Your task to perform on an android device: change text size in settings app Image 0: 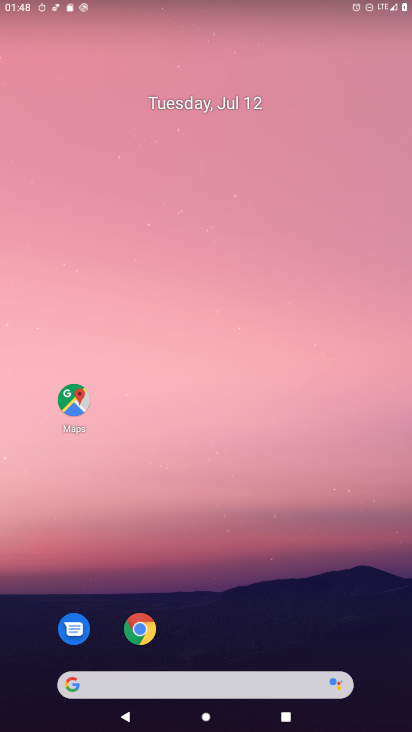
Step 0: drag from (130, 597) to (287, 188)
Your task to perform on an android device: change text size in settings app Image 1: 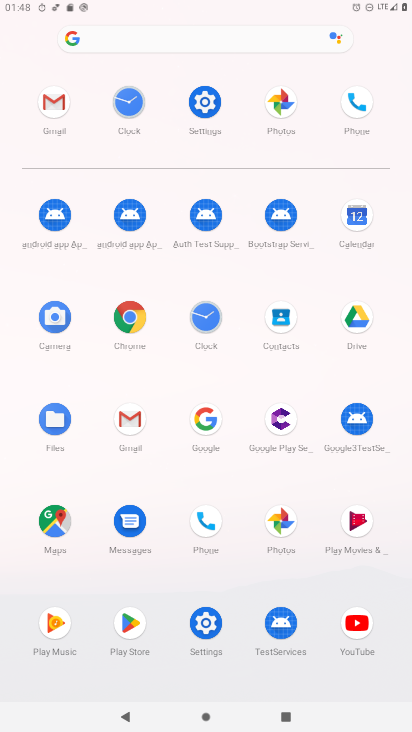
Step 1: click (221, 631)
Your task to perform on an android device: change text size in settings app Image 2: 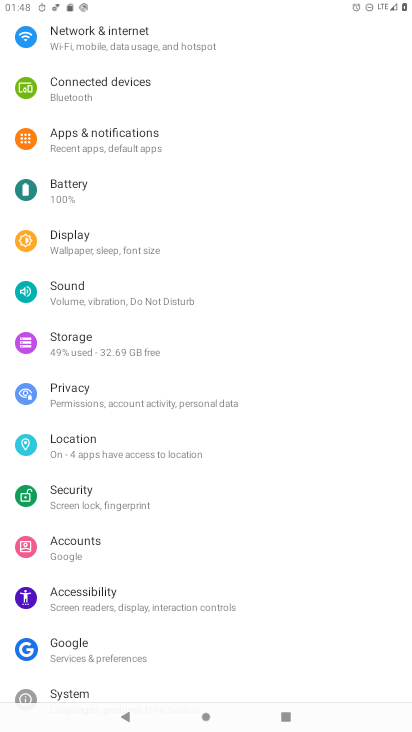
Step 2: drag from (147, 638) to (230, 203)
Your task to perform on an android device: change text size in settings app Image 3: 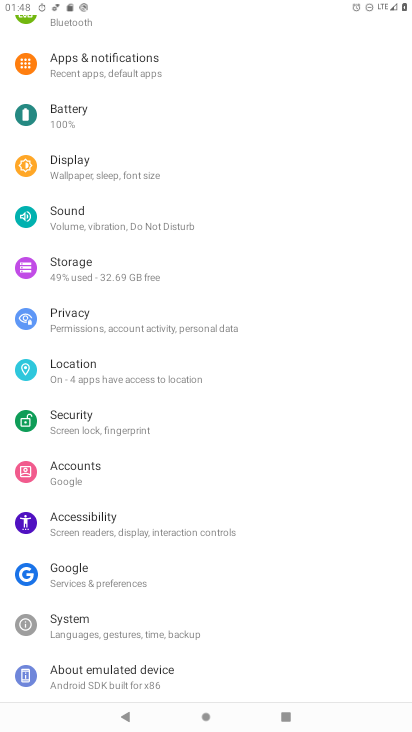
Step 3: click (149, 517)
Your task to perform on an android device: change text size in settings app Image 4: 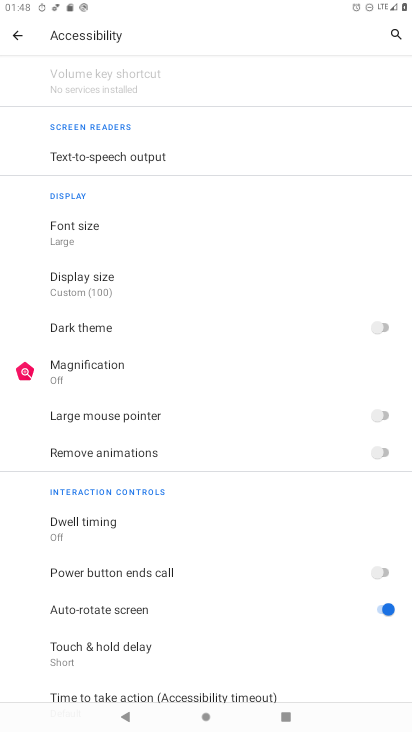
Step 4: click (115, 232)
Your task to perform on an android device: change text size in settings app Image 5: 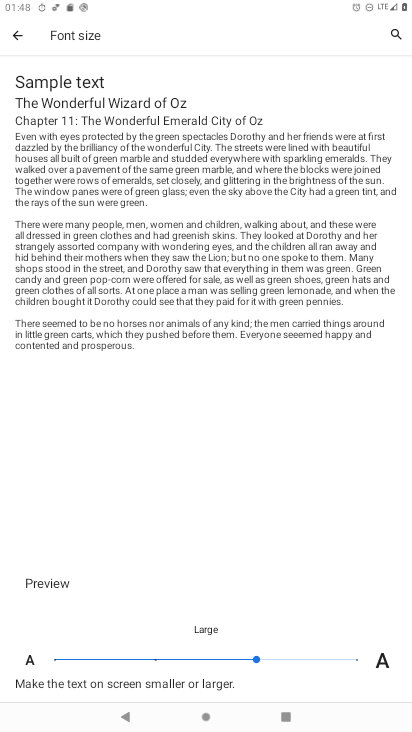
Step 5: click (267, 656)
Your task to perform on an android device: change text size in settings app Image 6: 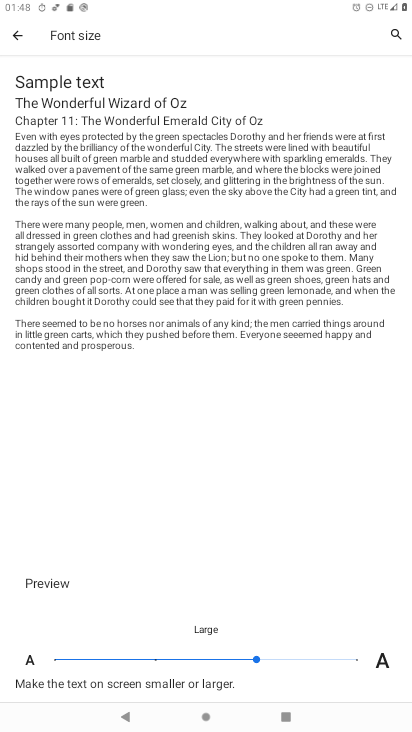
Step 6: click (262, 656)
Your task to perform on an android device: change text size in settings app Image 7: 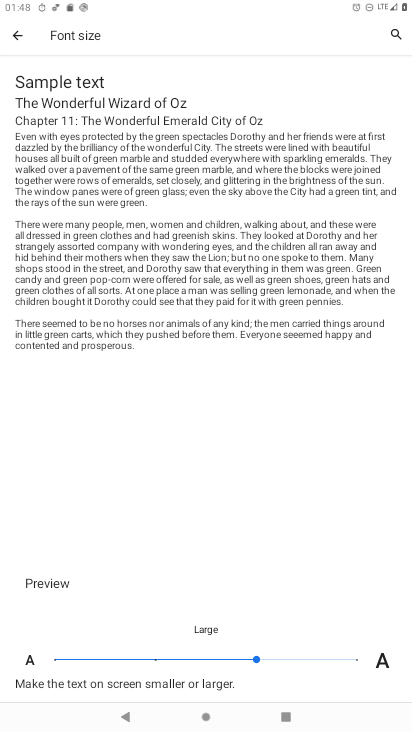
Step 7: click (233, 656)
Your task to perform on an android device: change text size in settings app Image 8: 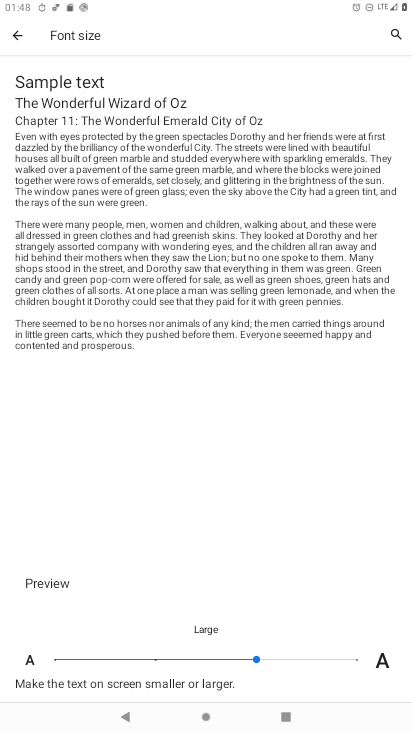
Step 8: click (25, 36)
Your task to perform on an android device: change text size in settings app Image 9: 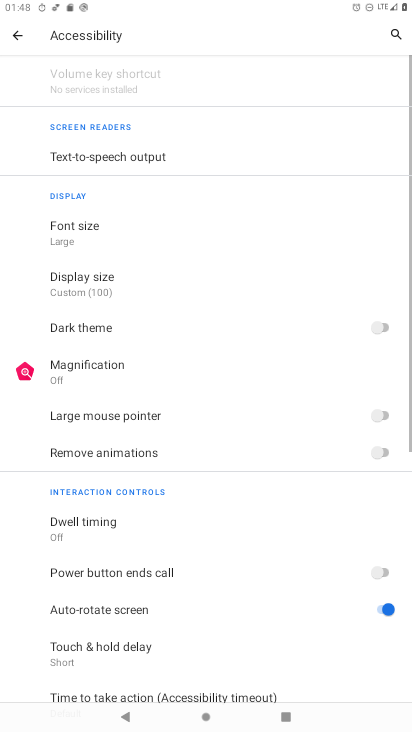
Step 9: task complete